Your task to perform on an android device: Open wifi settings Image 0: 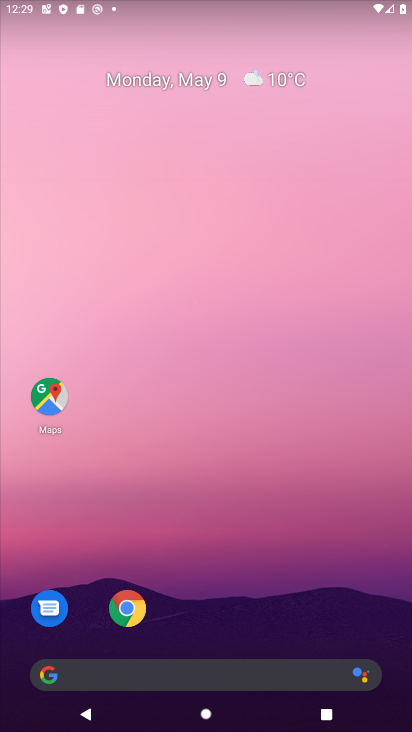
Step 0: drag from (226, 611) to (222, 160)
Your task to perform on an android device: Open wifi settings Image 1: 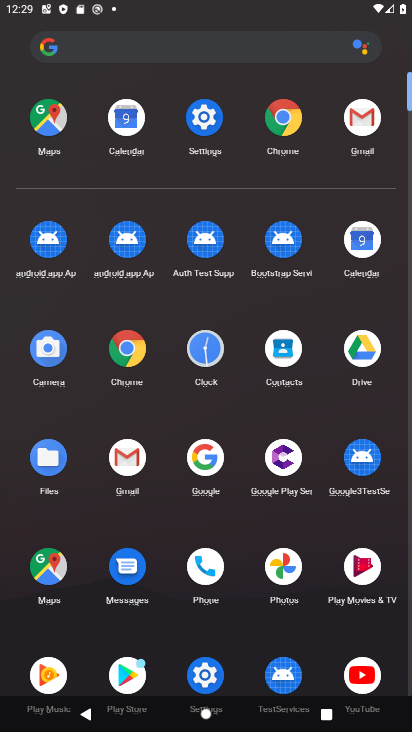
Step 1: click (209, 146)
Your task to perform on an android device: Open wifi settings Image 2: 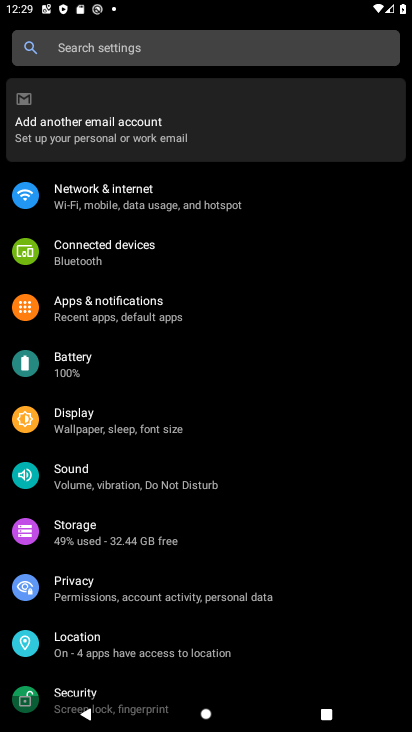
Step 2: click (158, 202)
Your task to perform on an android device: Open wifi settings Image 3: 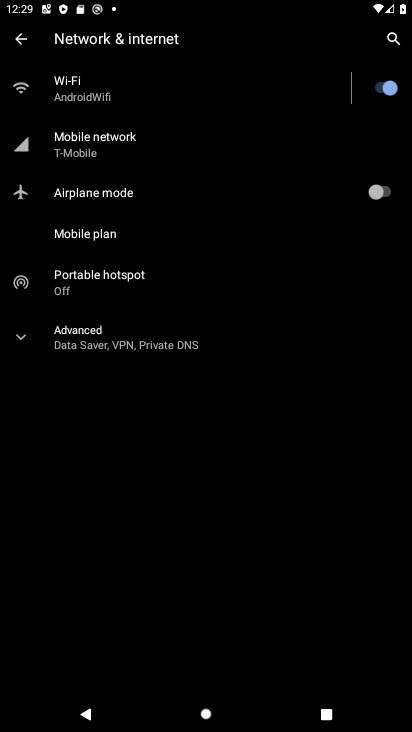
Step 3: click (212, 99)
Your task to perform on an android device: Open wifi settings Image 4: 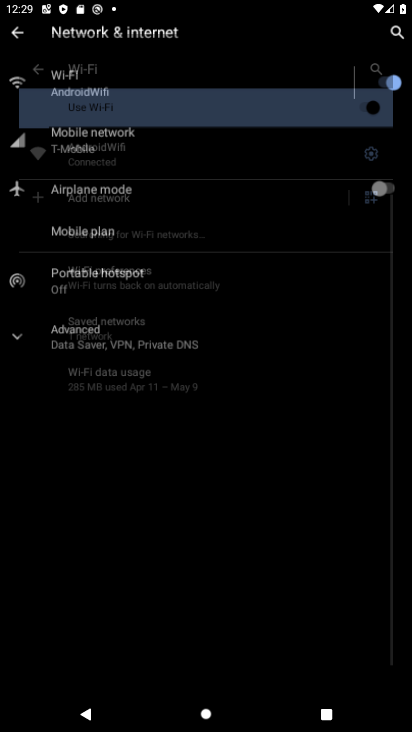
Step 4: task complete